Your task to perform on an android device: manage bookmarks in the chrome app Image 0: 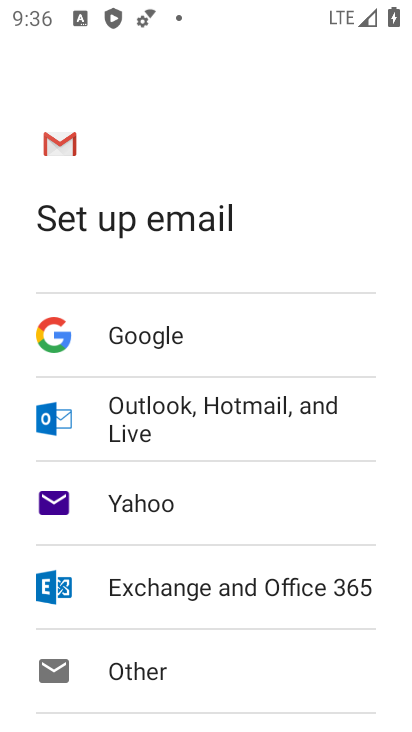
Step 0: press home button
Your task to perform on an android device: manage bookmarks in the chrome app Image 1: 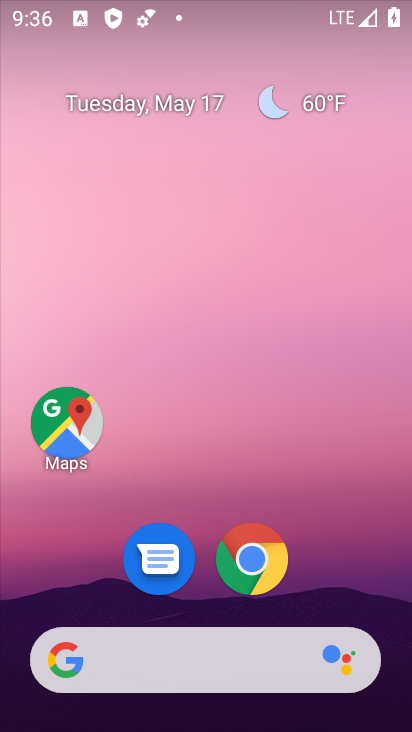
Step 1: click (252, 533)
Your task to perform on an android device: manage bookmarks in the chrome app Image 2: 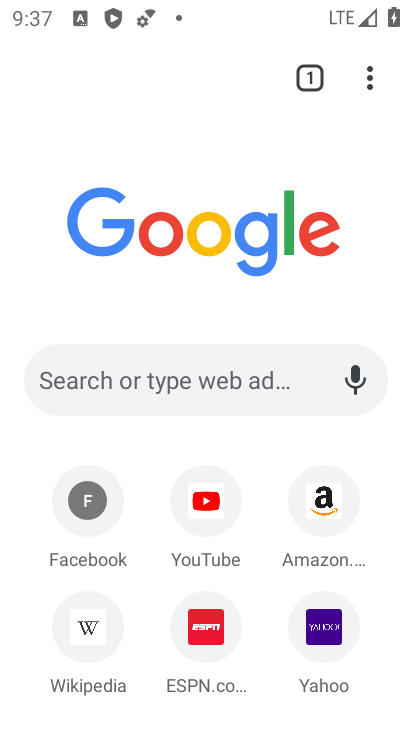
Step 2: drag from (363, 71) to (179, 287)
Your task to perform on an android device: manage bookmarks in the chrome app Image 3: 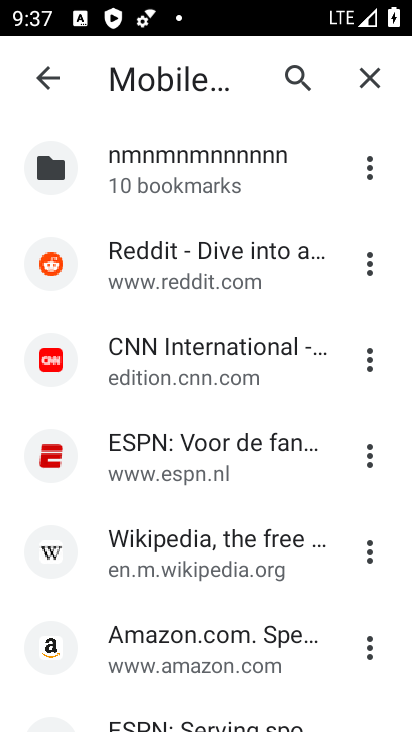
Step 3: click (370, 267)
Your task to perform on an android device: manage bookmarks in the chrome app Image 4: 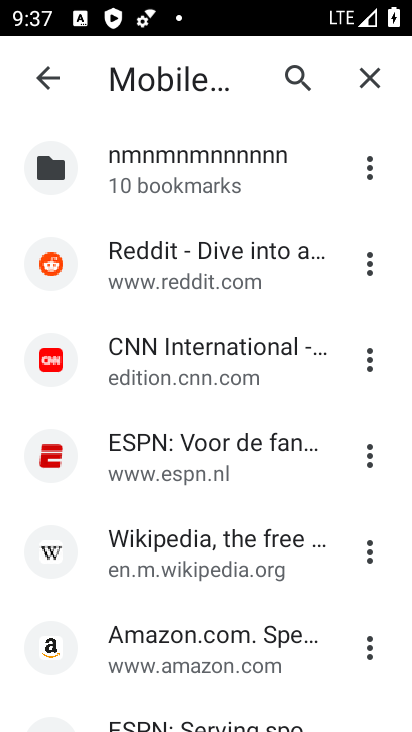
Step 4: click (370, 267)
Your task to perform on an android device: manage bookmarks in the chrome app Image 5: 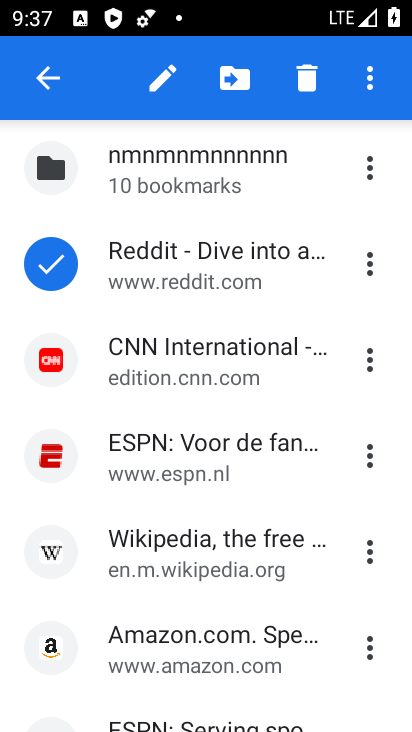
Step 5: click (370, 267)
Your task to perform on an android device: manage bookmarks in the chrome app Image 6: 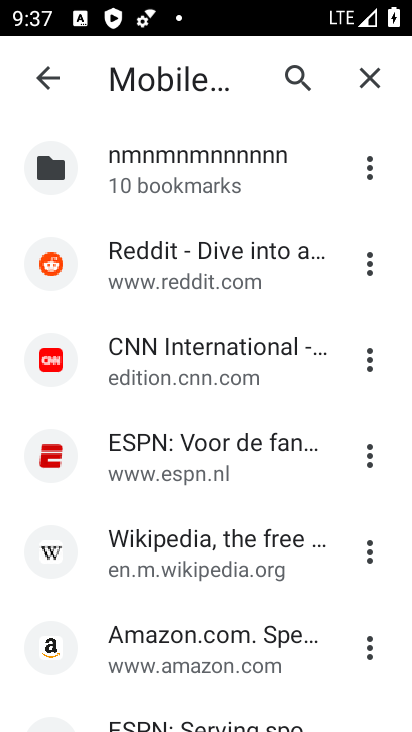
Step 6: click (368, 258)
Your task to perform on an android device: manage bookmarks in the chrome app Image 7: 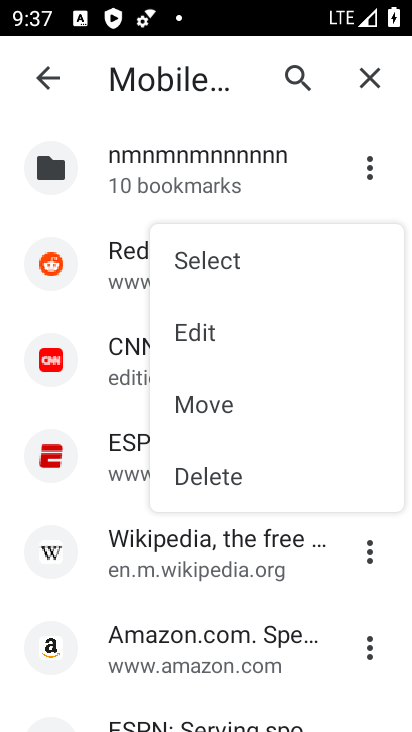
Step 7: click (192, 474)
Your task to perform on an android device: manage bookmarks in the chrome app Image 8: 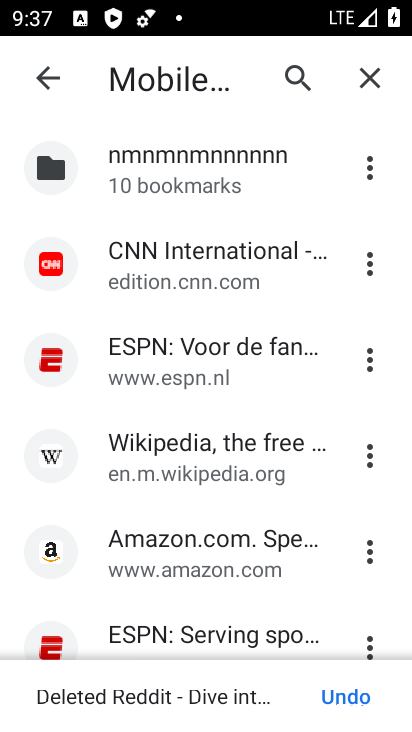
Step 8: task complete